Your task to perform on an android device: uninstall "PlayWell" Image 0: 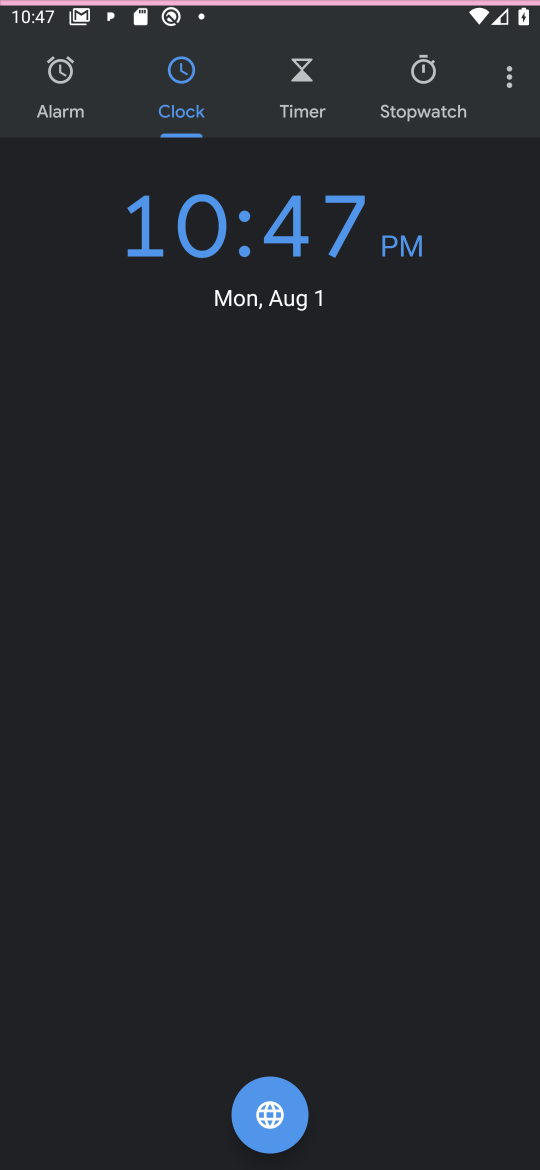
Step 0: press home button
Your task to perform on an android device: uninstall "PlayWell" Image 1: 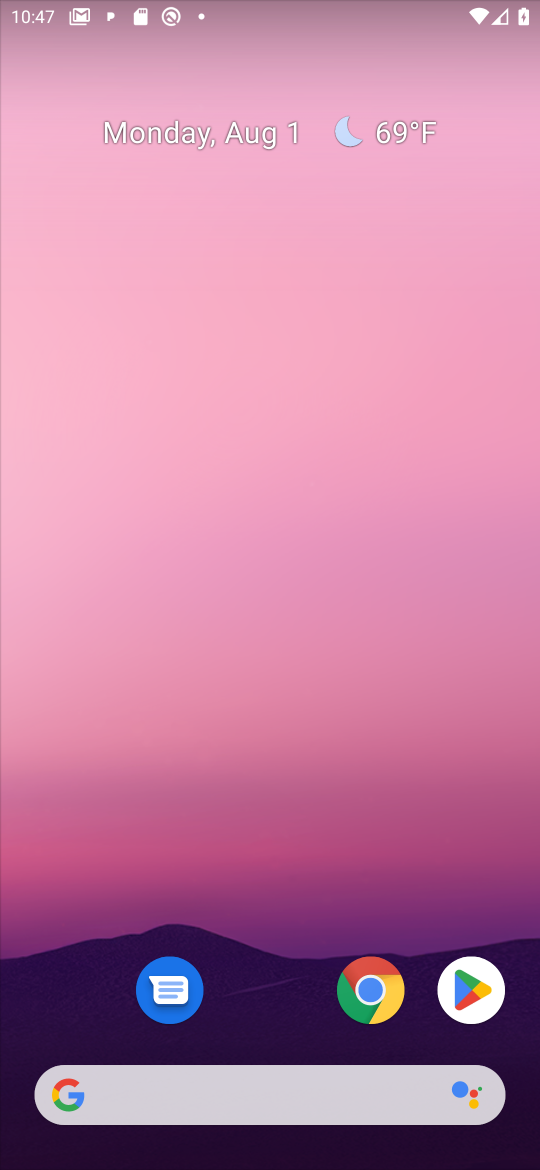
Step 1: click (467, 973)
Your task to perform on an android device: uninstall "PlayWell" Image 2: 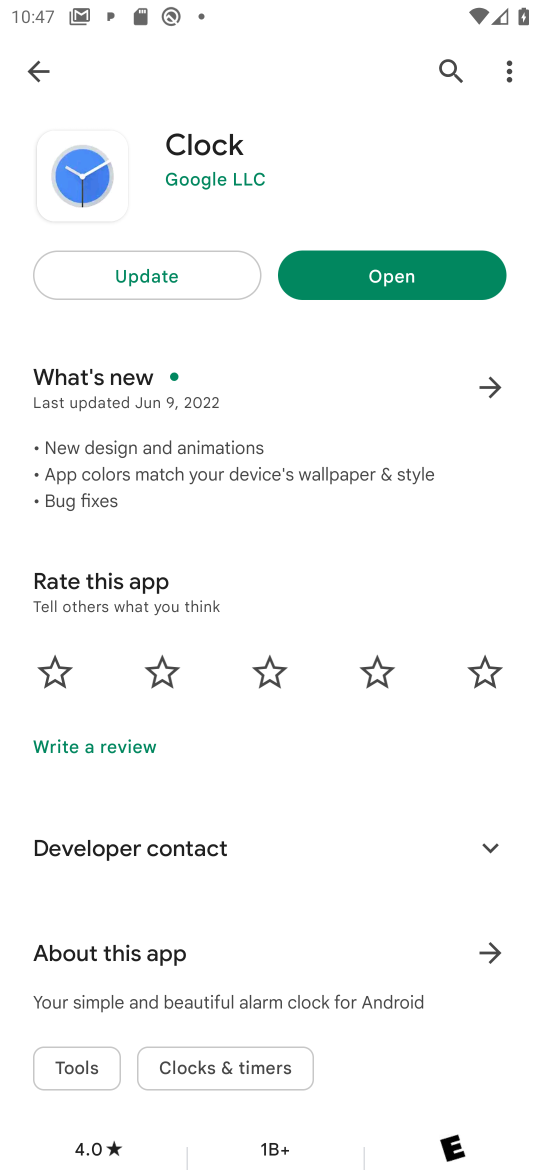
Step 2: click (450, 55)
Your task to perform on an android device: uninstall "PlayWell" Image 3: 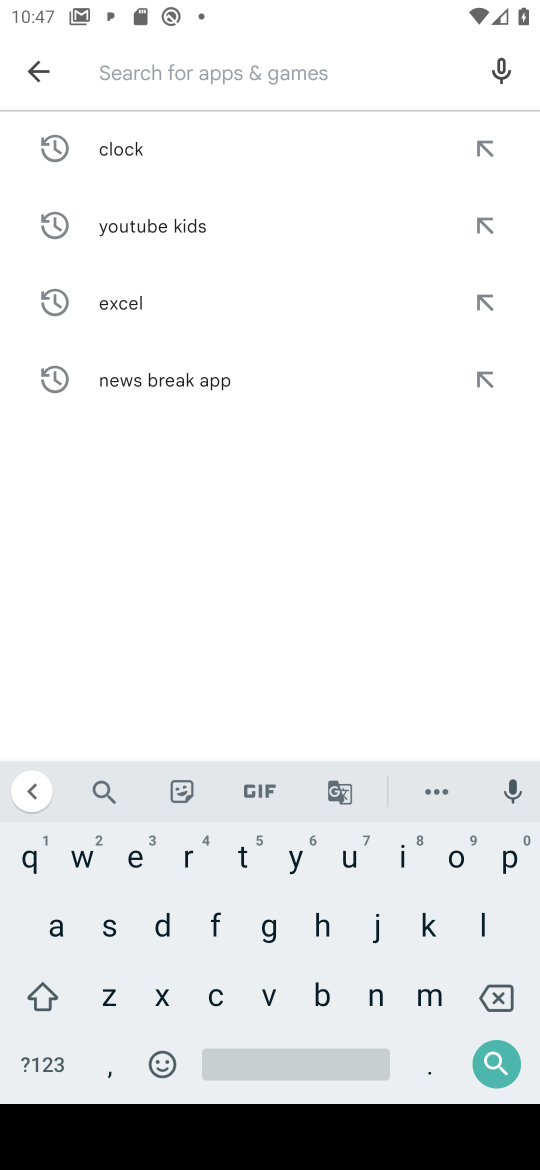
Step 3: click (514, 865)
Your task to perform on an android device: uninstall "PlayWell" Image 4: 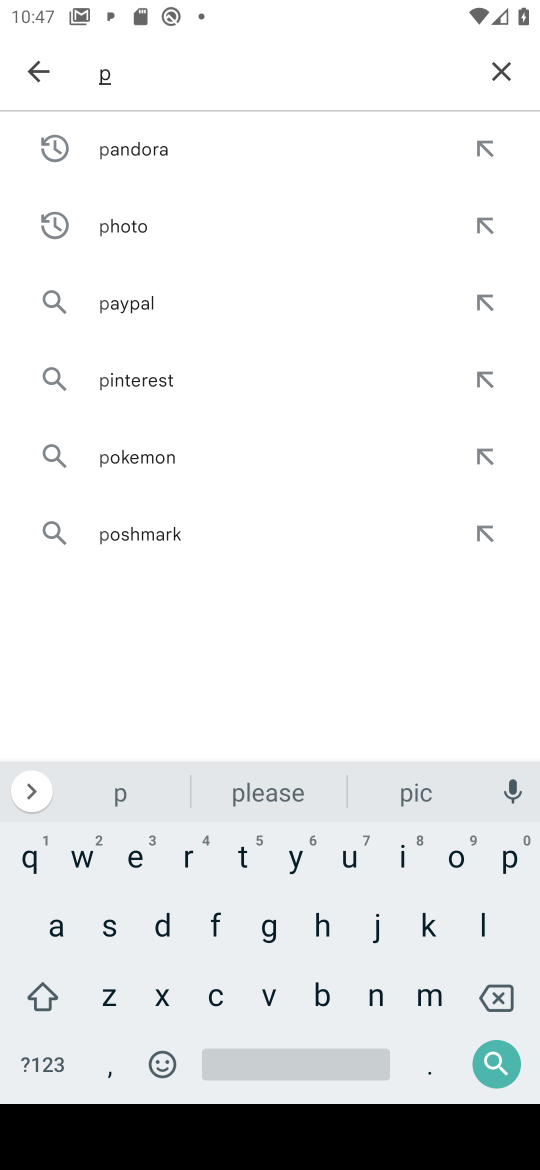
Step 4: click (474, 924)
Your task to perform on an android device: uninstall "PlayWell" Image 5: 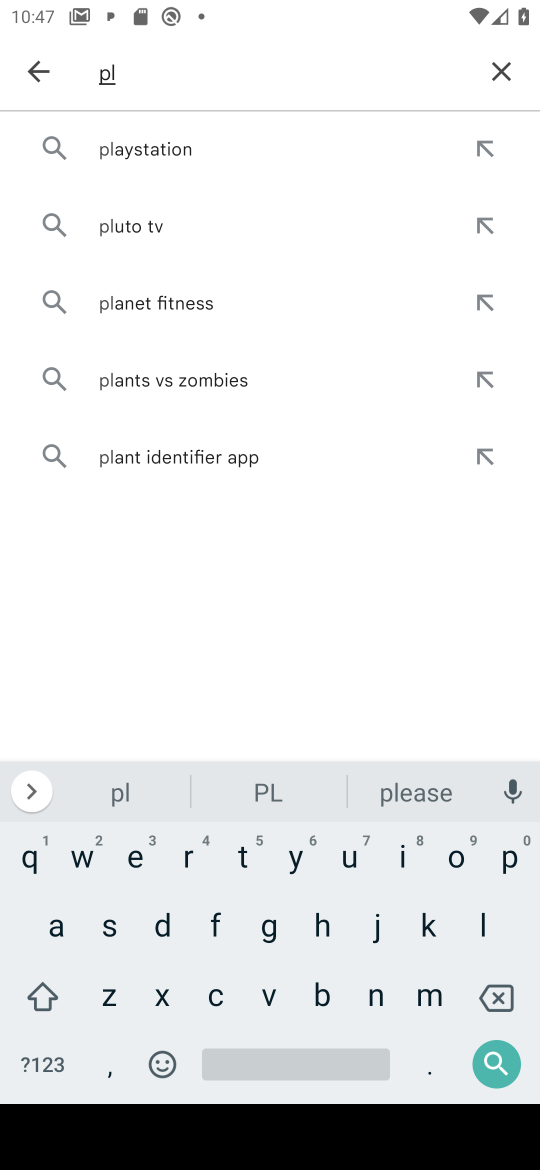
Step 5: click (58, 917)
Your task to perform on an android device: uninstall "PlayWell" Image 6: 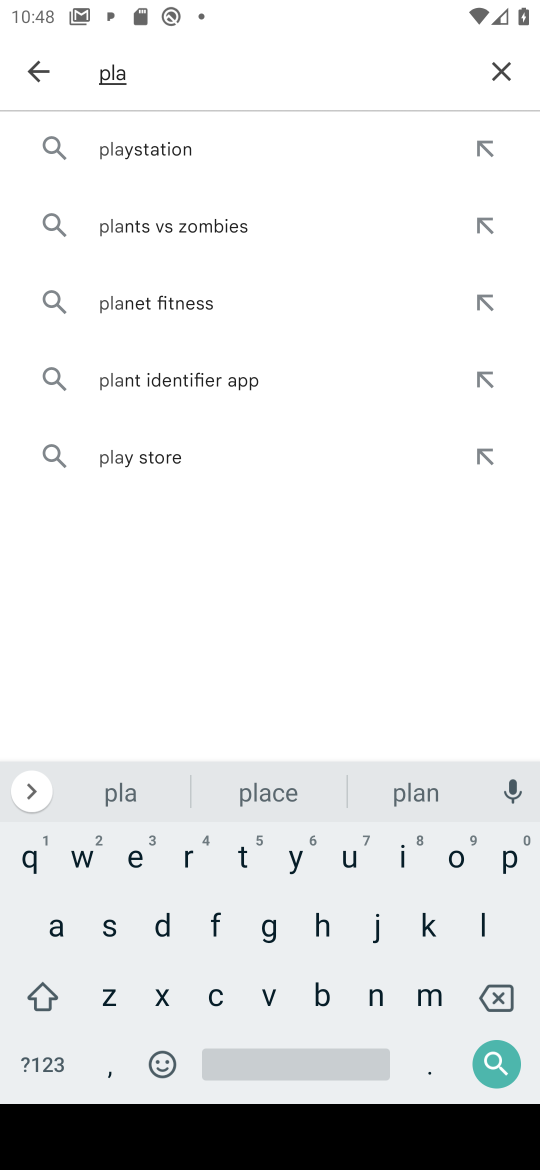
Step 6: click (303, 858)
Your task to perform on an android device: uninstall "PlayWell" Image 7: 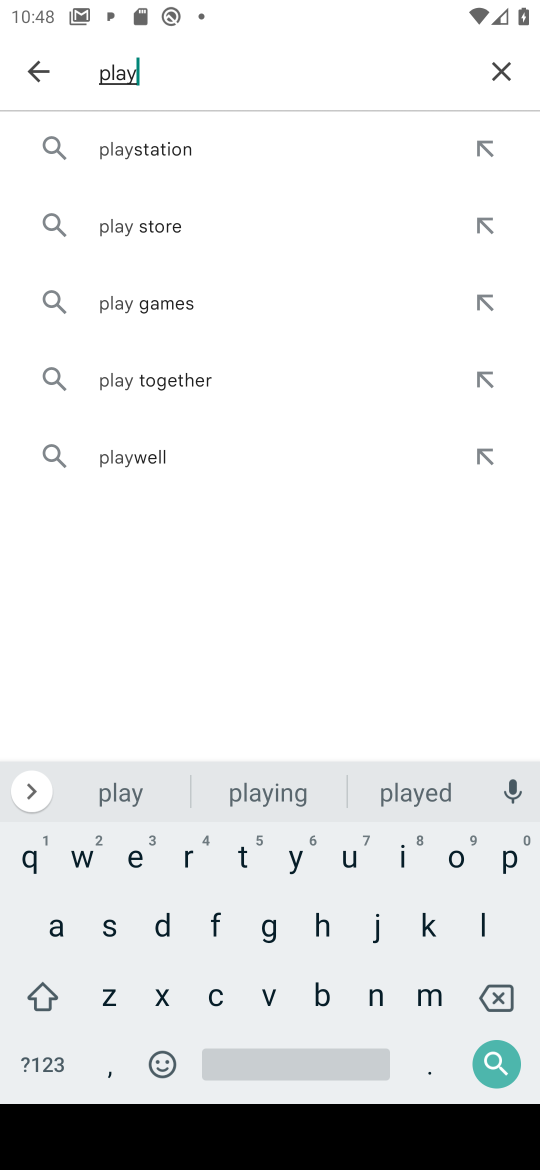
Step 7: click (86, 851)
Your task to perform on an android device: uninstall "PlayWell" Image 8: 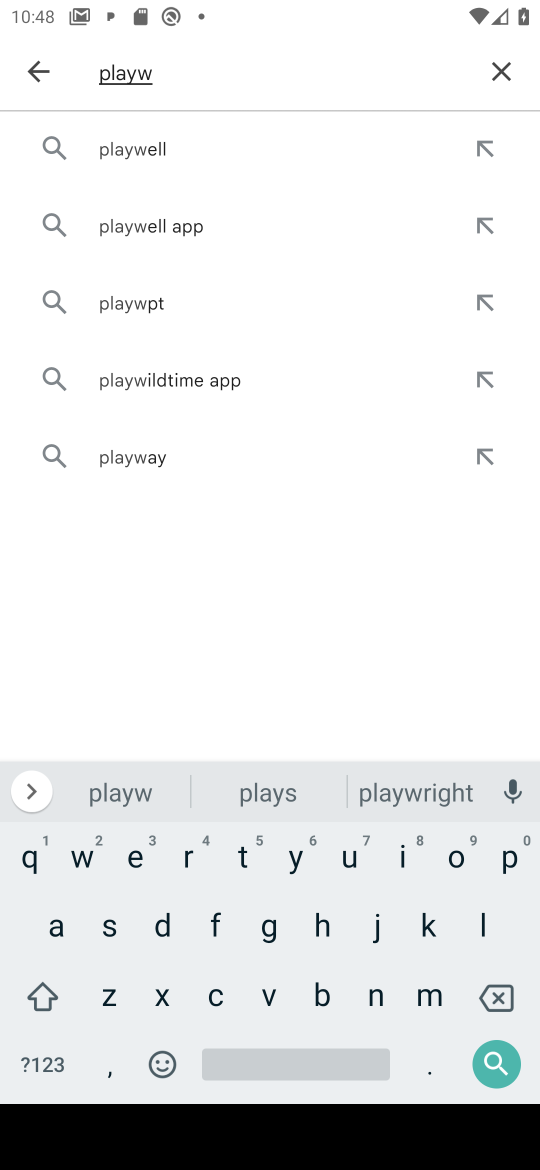
Step 8: click (155, 150)
Your task to perform on an android device: uninstall "PlayWell" Image 9: 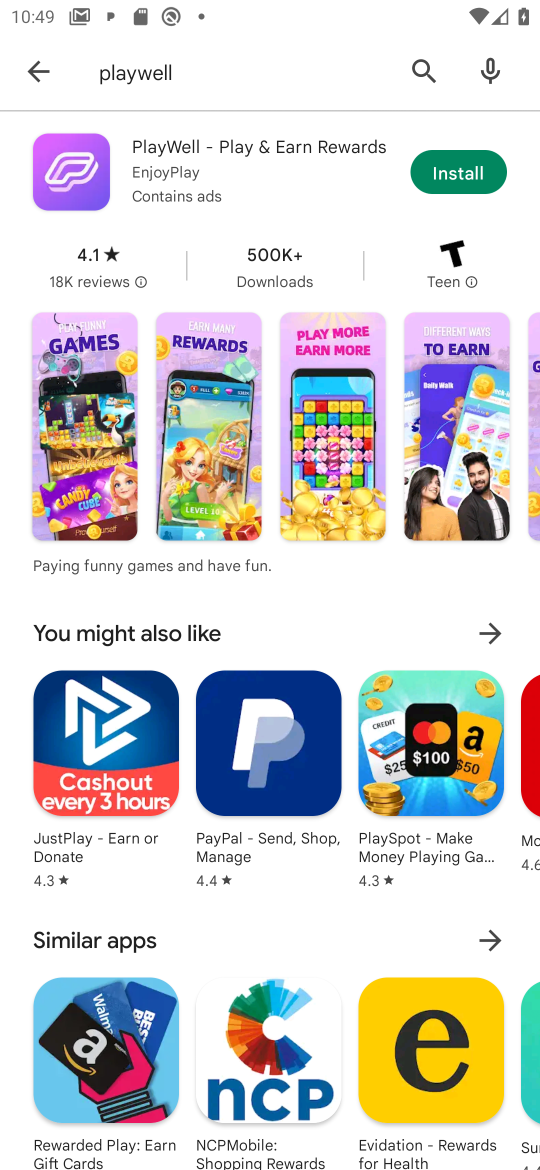
Step 9: task complete